Your task to perform on an android device: add a contact in the contacts app Image 0: 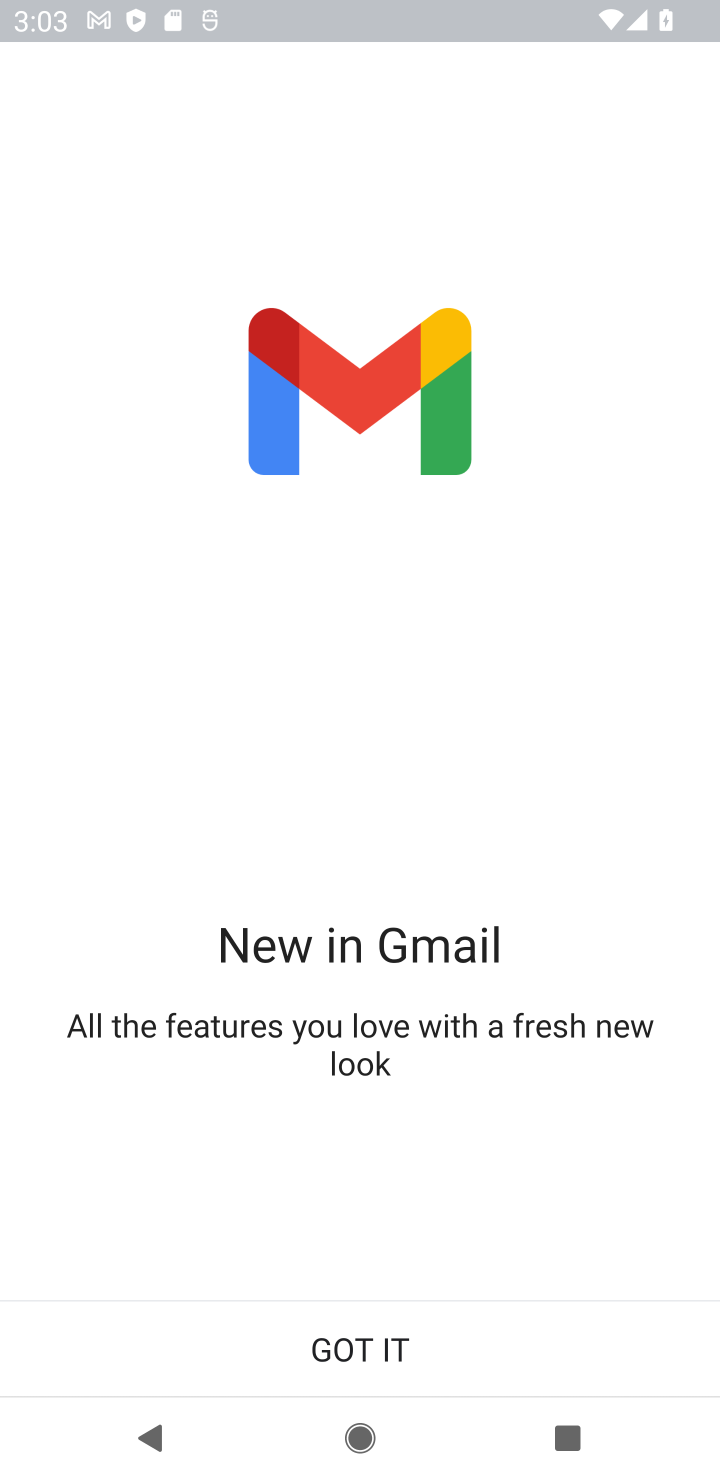
Step 0: click (442, 1335)
Your task to perform on an android device: add a contact in the contacts app Image 1: 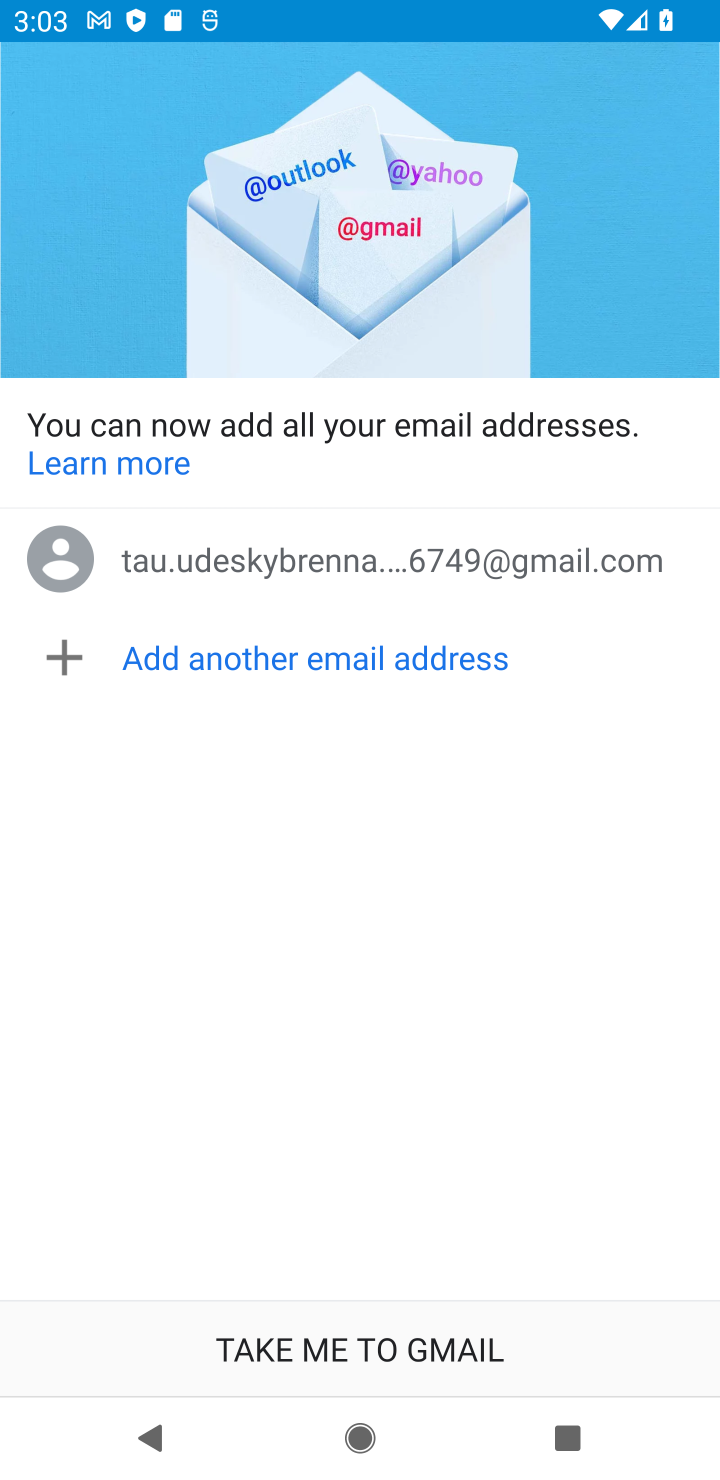
Step 1: task complete